Your task to perform on an android device: Open Google Maps and go to "Timeline" Image 0: 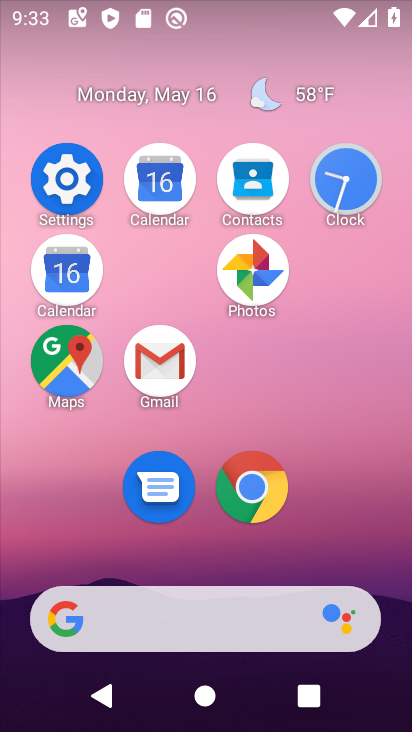
Step 0: click (77, 368)
Your task to perform on an android device: Open Google Maps and go to "Timeline" Image 1: 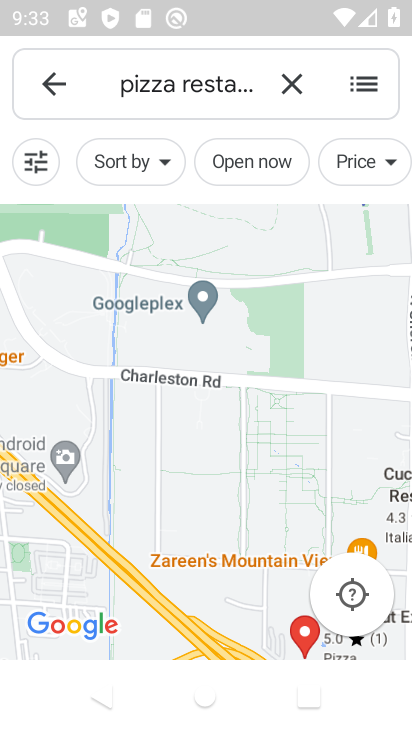
Step 1: click (42, 88)
Your task to perform on an android device: Open Google Maps and go to "Timeline" Image 2: 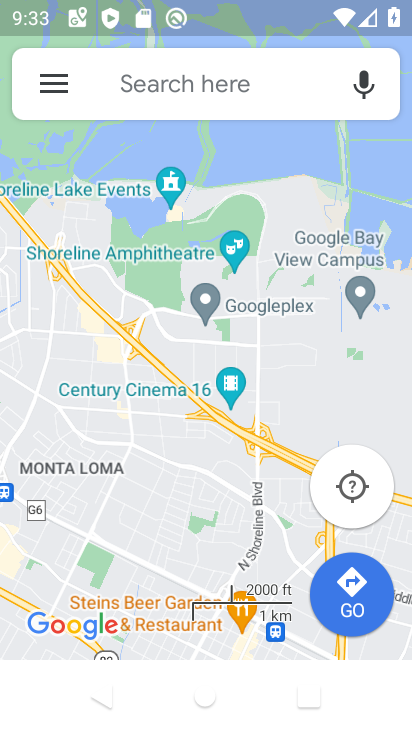
Step 2: click (51, 104)
Your task to perform on an android device: Open Google Maps and go to "Timeline" Image 3: 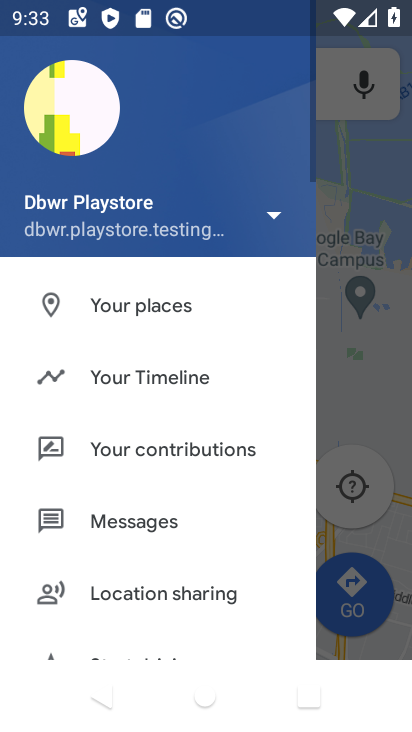
Step 3: click (135, 392)
Your task to perform on an android device: Open Google Maps and go to "Timeline" Image 4: 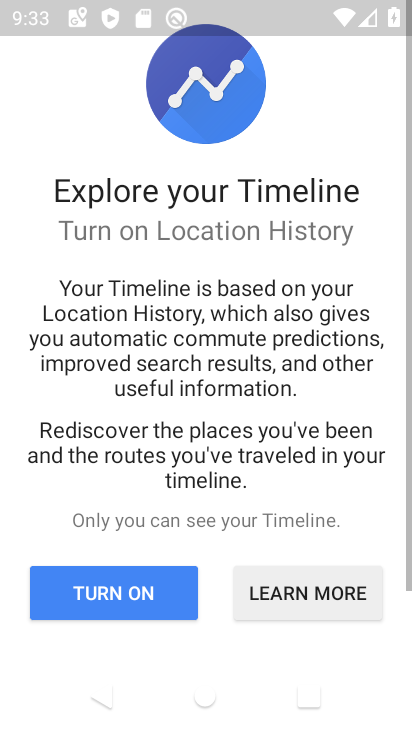
Step 4: drag from (302, 531) to (299, 174)
Your task to perform on an android device: Open Google Maps and go to "Timeline" Image 5: 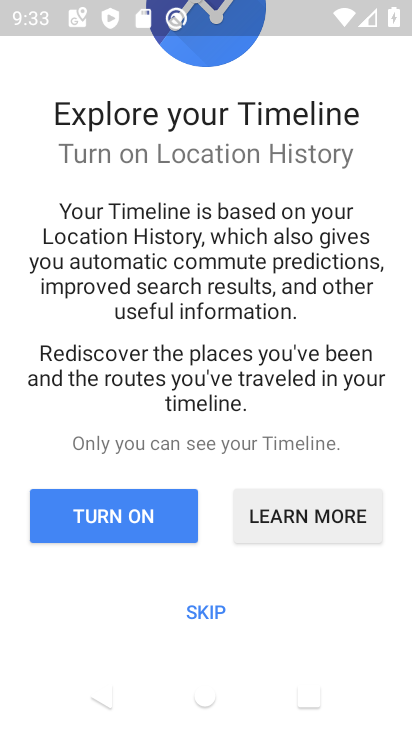
Step 5: click (79, 531)
Your task to perform on an android device: Open Google Maps and go to "Timeline" Image 6: 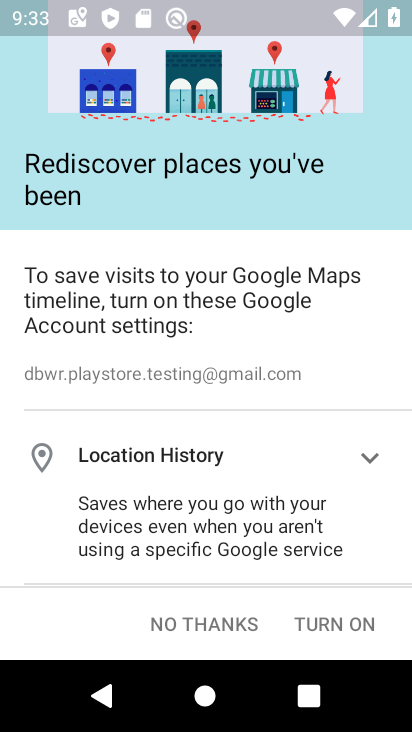
Step 6: click (381, 614)
Your task to perform on an android device: Open Google Maps and go to "Timeline" Image 7: 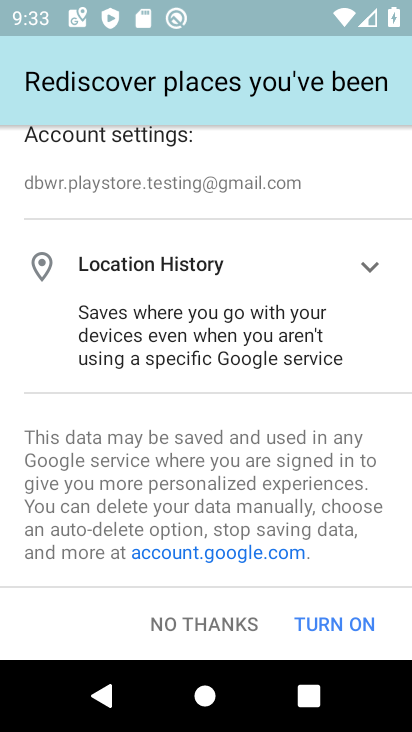
Step 7: click (362, 620)
Your task to perform on an android device: Open Google Maps and go to "Timeline" Image 8: 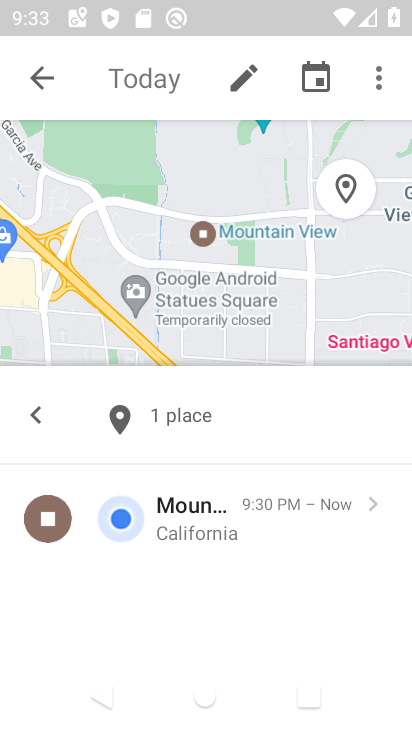
Step 8: task complete